Your task to perform on an android device: Go to CNN.com Image 0: 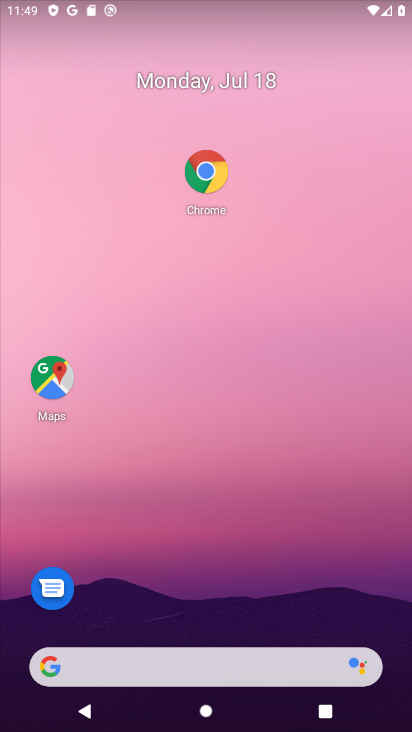
Step 0: click (155, 672)
Your task to perform on an android device: Go to CNN.com Image 1: 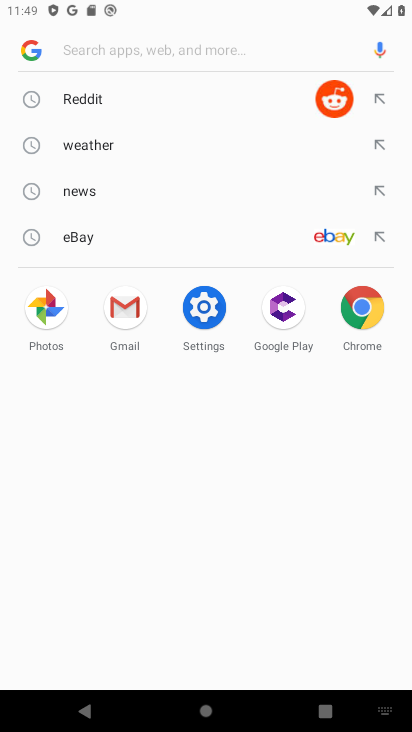
Step 1: type "cnn"
Your task to perform on an android device: Go to CNN.com Image 2: 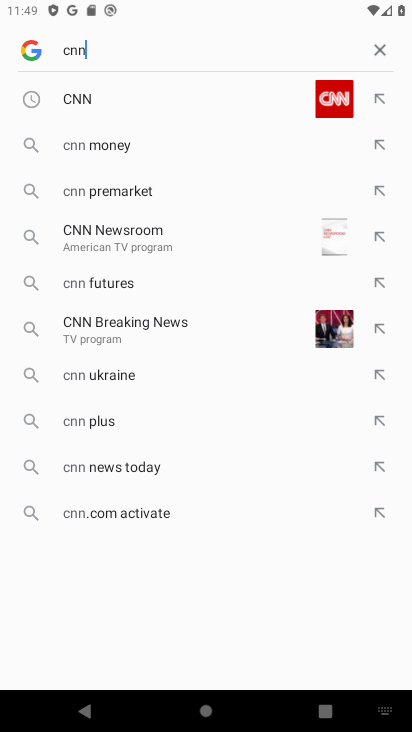
Step 2: click (293, 91)
Your task to perform on an android device: Go to CNN.com Image 3: 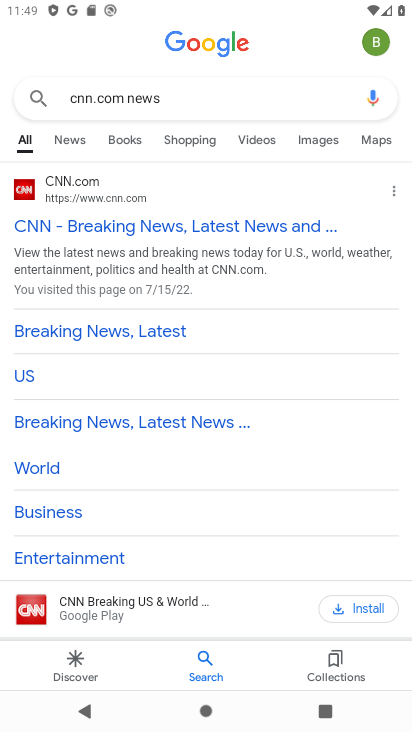
Step 3: click (93, 231)
Your task to perform on an android device: Go to CNN.com Image 4: 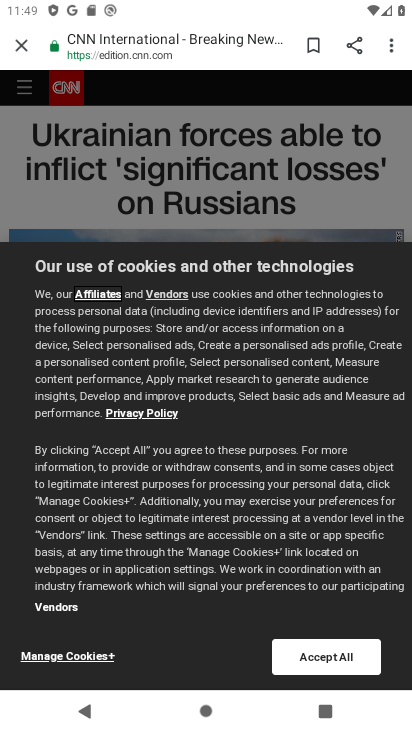
Step 4: task complete